Your task to perform on an android device: Open the Play Movies app and select the watchlist tab. Image 0: 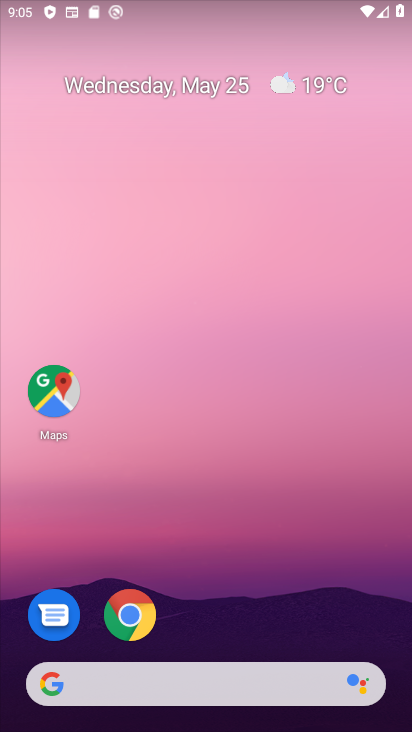
Step 0: drag from (219, 706) to (277, 39)
Your task to perform on an android device: Open the Play Movies app and select the watchlist tab. Image 1: 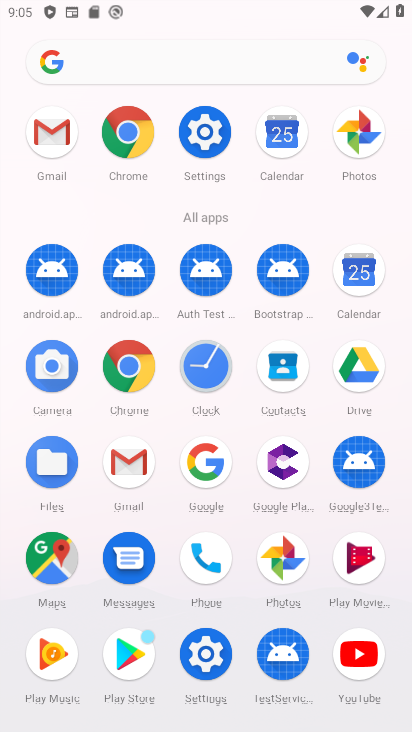
Step 1: click (341, 561)
Your task to perform on an android device: Open the Play Movies app and select the watchlist tab. Image 2: 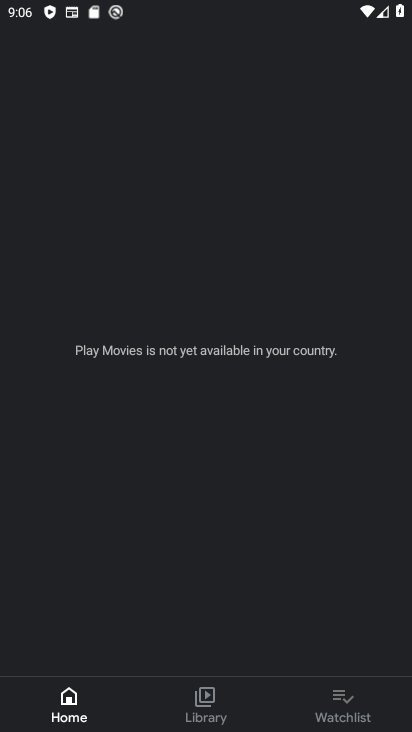
Step 2: click (344, 706)
Your task to perform on an android device: Open the Play Movies app and select the watchlist tab. Image 3: 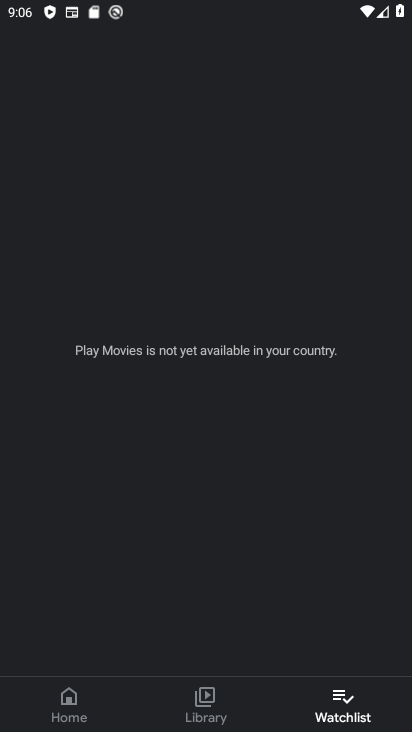
Step 3: task complete